Your task to perform on an android device: Go to Google Image 0: 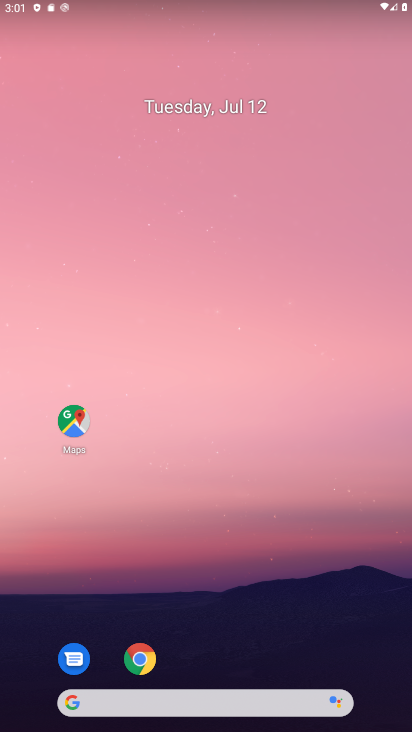
Step 0: click (85, 700)
Your task to perform on an android device: Go to Google Image 1: 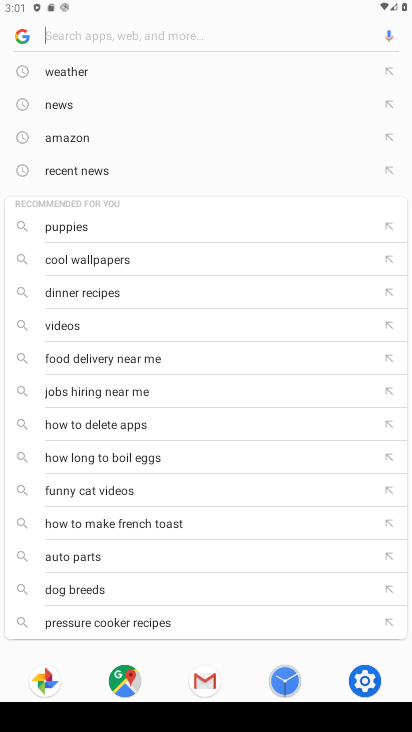
Step 1: task complete